Your task to perform on an android device: toggle notification dots Image 0: 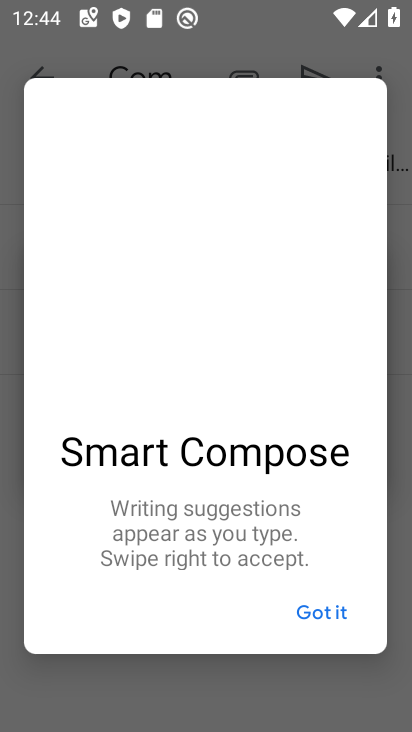
Step 0: press home button
Your task to perform on an android device: toggle notification dots Image 1: 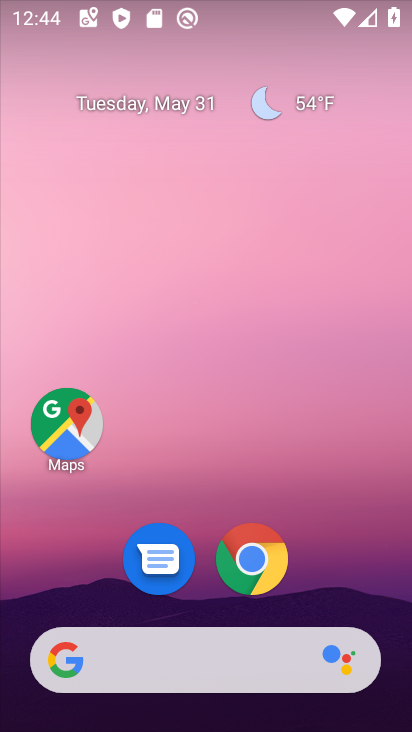
Step 1: drag from (148, 729) to (181, 95)
Your task to perform on an android device: toggle notification dots Image 2: 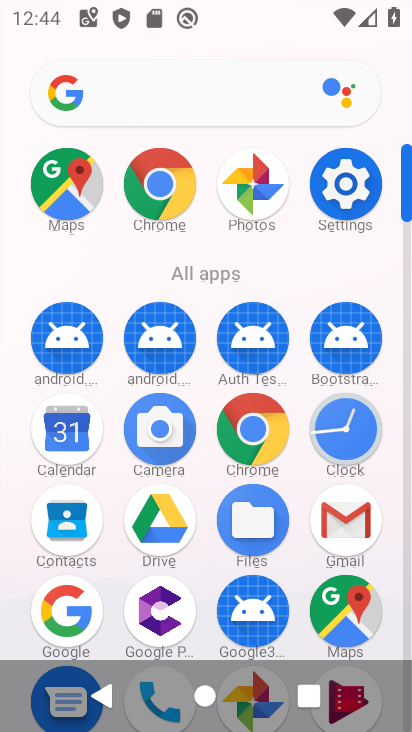
Step 2: click (345, 188)
Your task to perform on an android device: toggle notification dots Image 3: 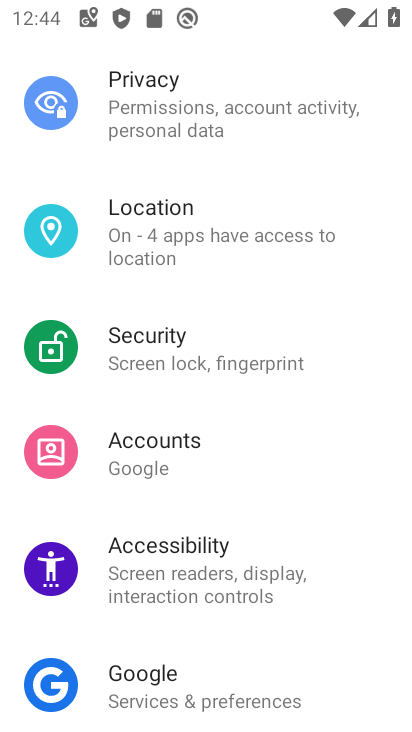
Step 3: drag from (222, 152) to (224, 575)
Your task to perform on an android device: toggle notification dots Image 4: 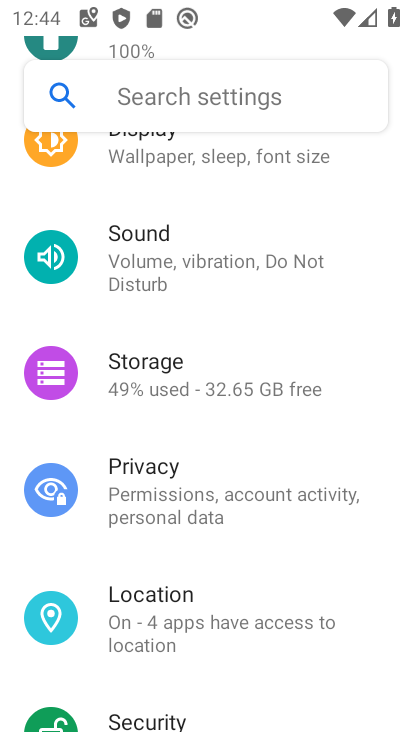
Step 4: drag from (246, 190) to (301, 609)
Your task to perform on an android device: toggle notification dots Image 5: 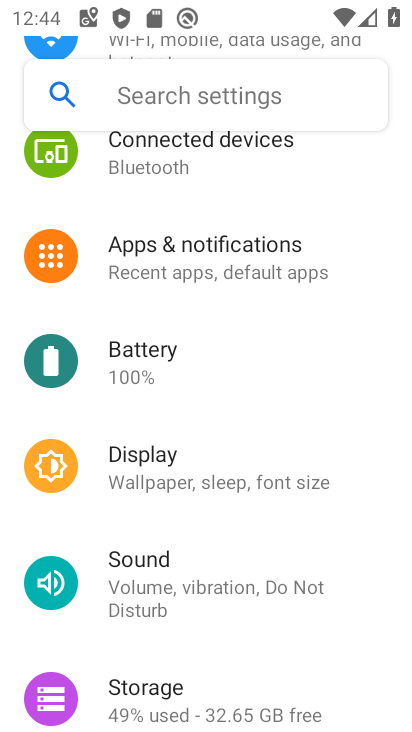
Step 5: click (231, 265)
Your task to perform on an android device: toggle notification dots Image 6: 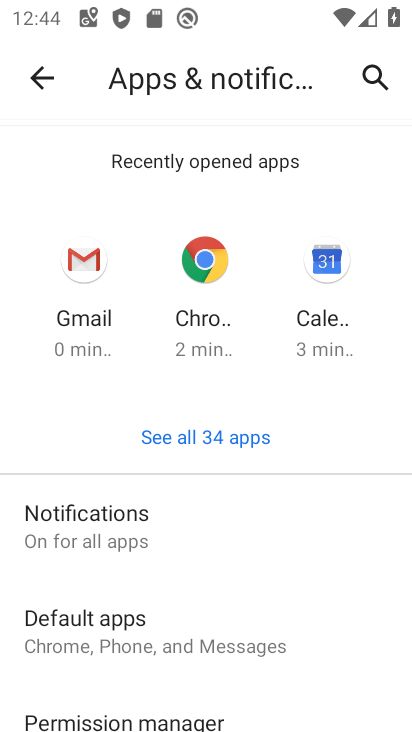
Step 6: click (154, 537)
Your task to perform on an android device: toggle notification dots Image 7: 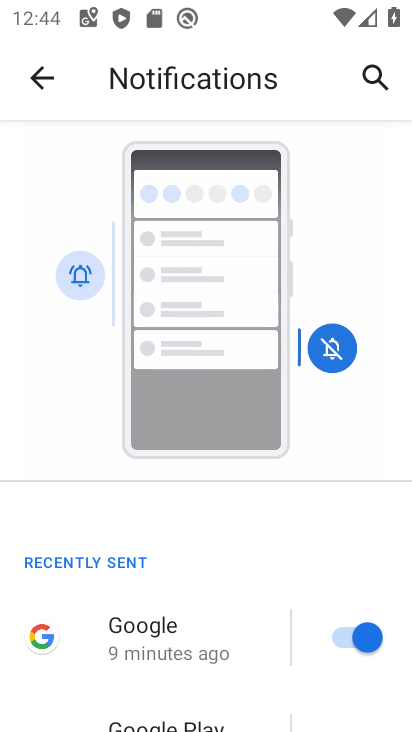
Step 7: drag from (237, 638) to (265, 220)
Your task to perform on an android device: toggle notification dots Image 8: 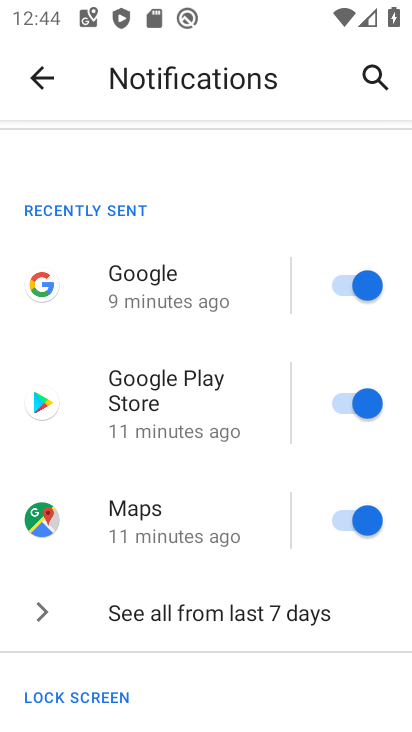
Step 8: drag from (231, 691) to (249, 259)
Your task to perform on an android device: toggle notification dots Image 9: 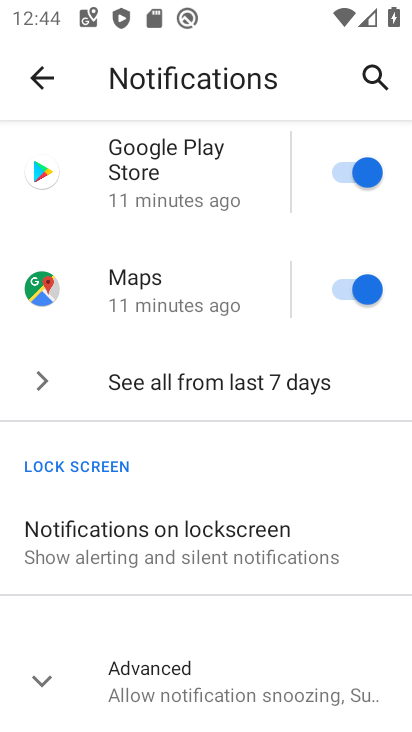
Step 9: click (165, 701)
Your task to perform on an android device: toggle notification dots Image 10: 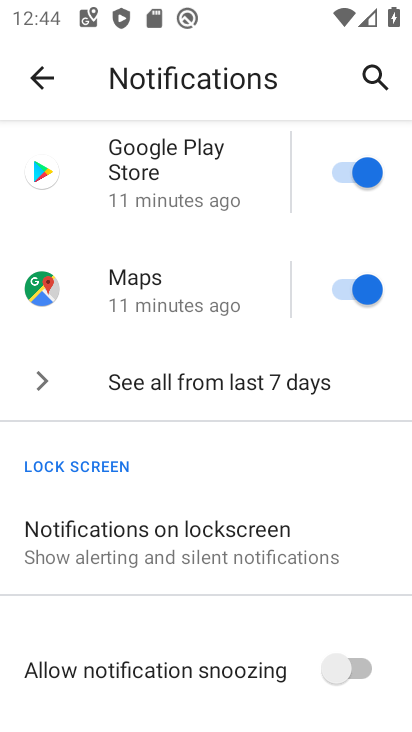
Step 10: drag from (236, 685) to (197, 390)
Your task to perform on an android device: toggle notification dots Image 11: 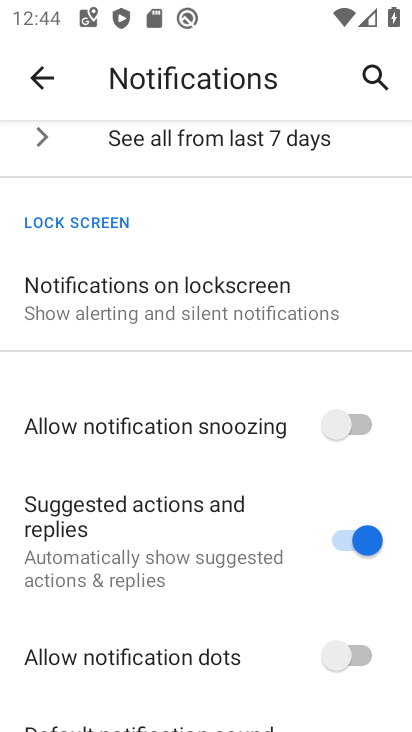
Step 11: click (348, 659)
Your task to perform on an android device: toggle notification dots Image 12: 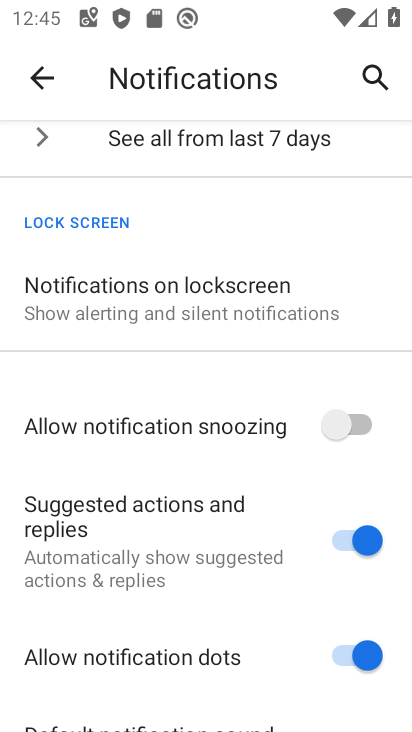
Step 12: task complete